Your task to perform on an android device: Open Amazon Image 0: 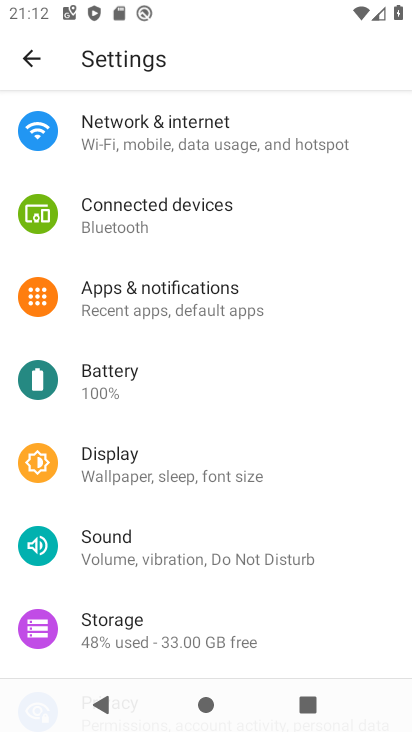
Step 0: press home button
Your task to perform on an android device: Open Amazon Image 1: 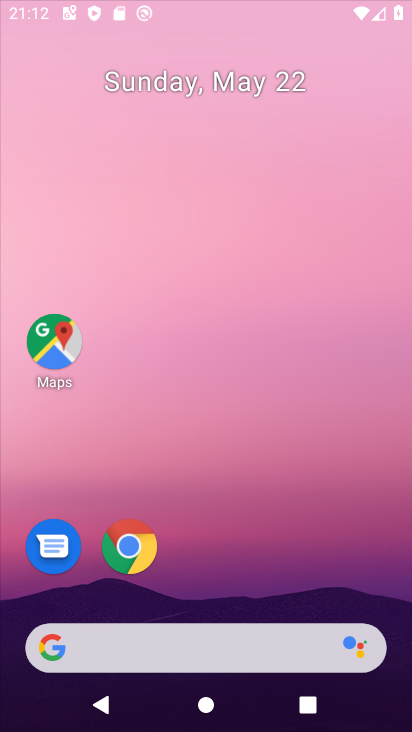
Step 1: drag from (187, 615) to (246, 81)
Your task to perform on an android device: Open Amazon Image 2: 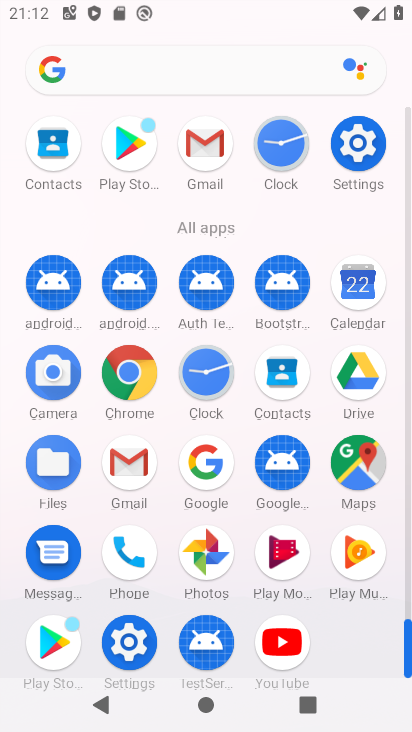
Step 2: click (133, 366)
Your task to perform on an android device: Open Amazon Image 3: 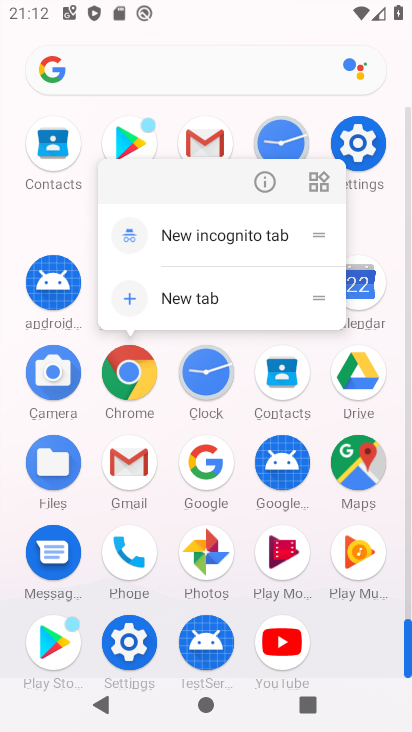
Step 3: click (255, 193)
Your task to perform on an android device: Open Amazon Image 4: 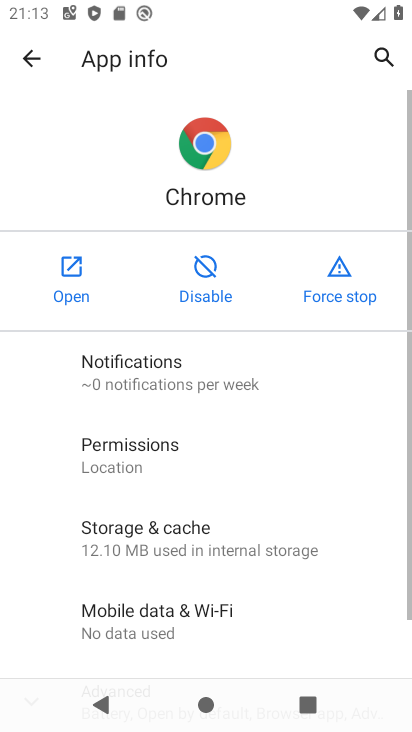
Step 4: click (69, 268)
Your task to perform on an android device: Open Amazon Image 5: 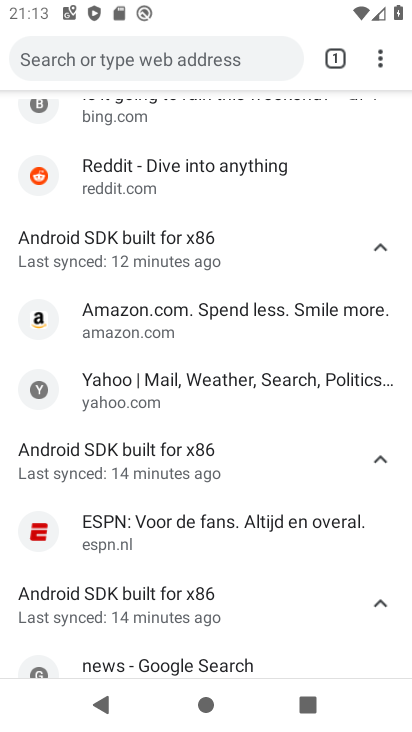
Step 5: click (391, 66)
Your task to perform on an android device: Open Amazon Image 6: 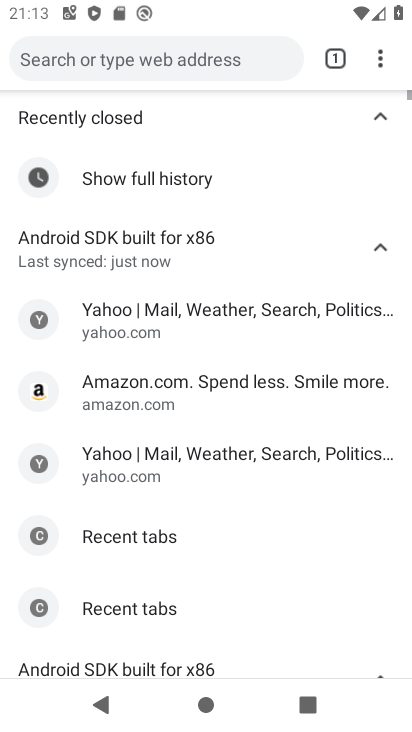
Step 6: click (377, 63)
Your task to perform on an android device: Open Amazon Image 7: 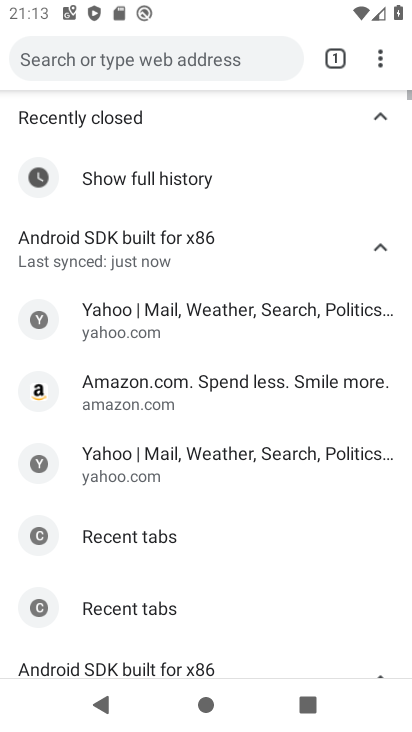
Step 7: click (380, 53)
Your task to perform on an android device: Open Amazon Image 8: 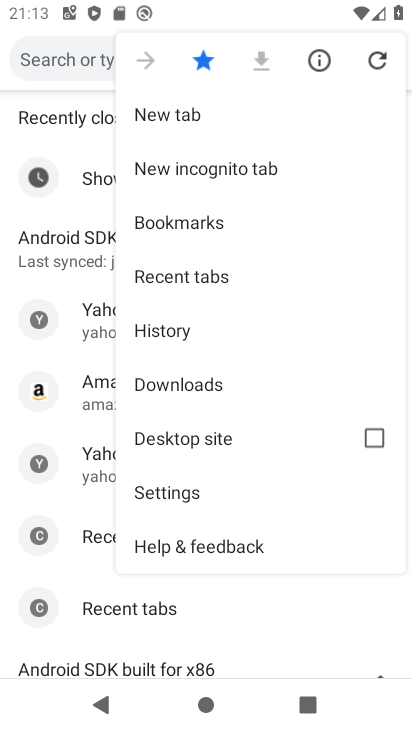
Step 8: click (77, 136)
Your task to perform on an android device: Open Amazon Image 9: 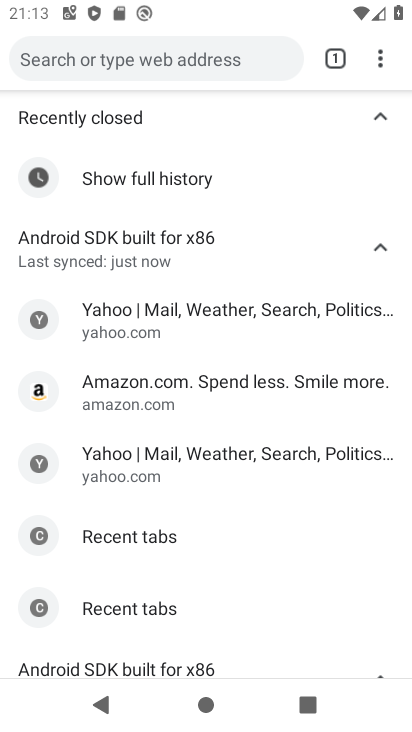
Step 9: click (331, 56)
Your task to perform on an android device: Open Amazon Image 10: 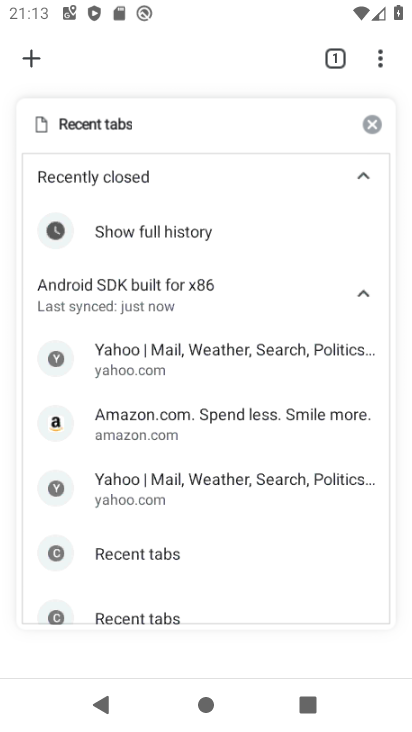
Step 10: click (367, 129)
Your task to perform on an android device: Open Amazon Image 11: 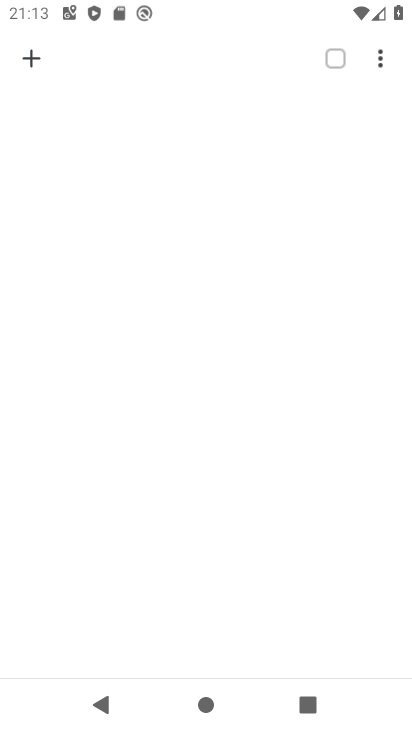
Step 11: click (24, 59)
Your task to perform on an android device: Open Amazon Image 12: 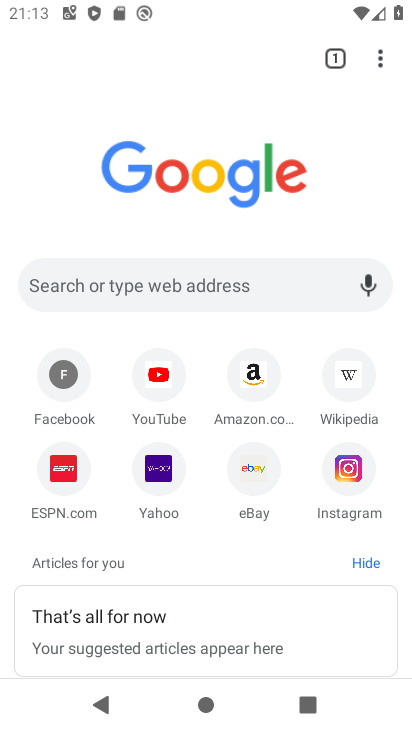
Step 12: click (252, 378)
Your task to perform on an android device: Open Amazon Image 13: 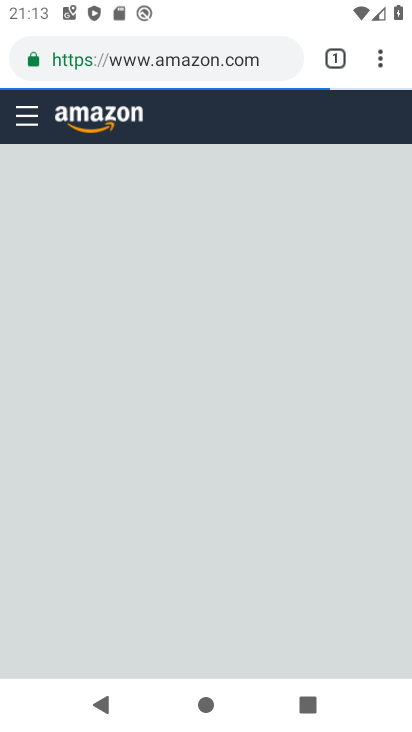
Step 13: task complete